Your task to perform on an android device: Go to sound settings Image 0: 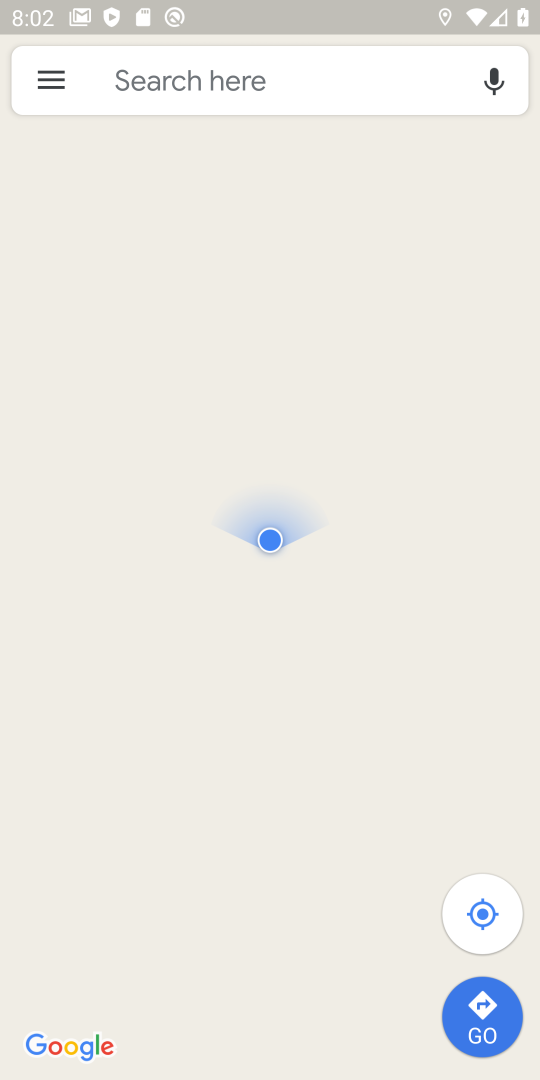
Step 0: press home button
Your task to perform on an android device: Go to sound settings Image 1: 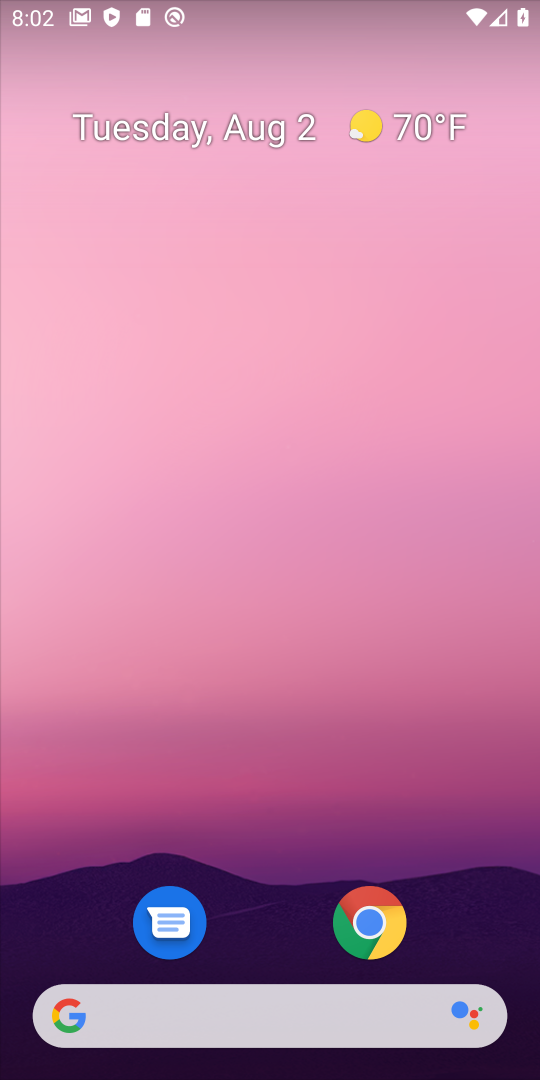
Step 1: drag from (443, 881) to (356, 369)
Your task to perform on an android device: Go to sound settings Image 2: 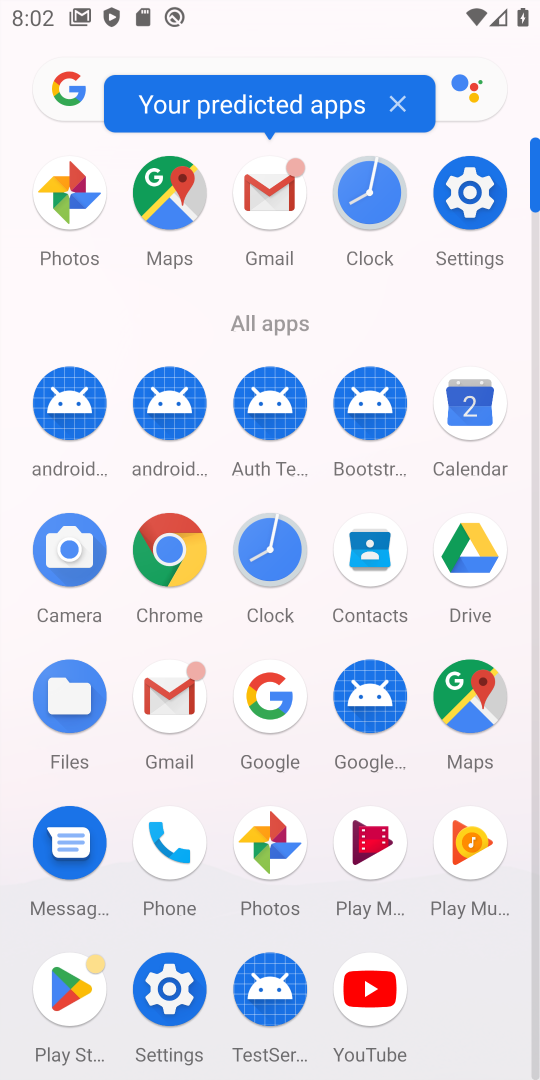
Step 2: click (466, 182)
Your task to perform on an android device: Go to sound settings Image 3: 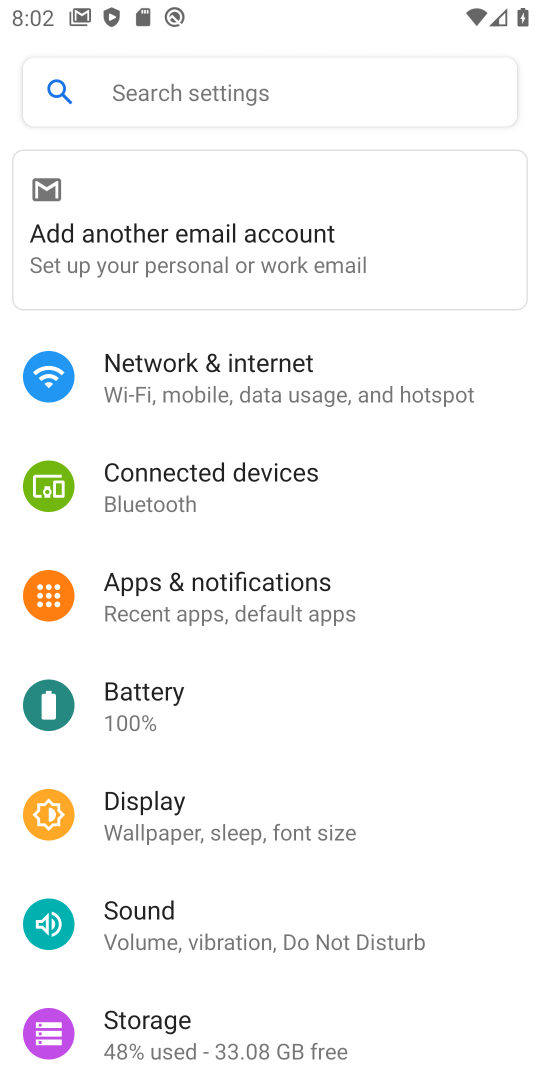
Step 3: click (133, 919)
Your task to perform on an android device: Go to sound settings Image 4: 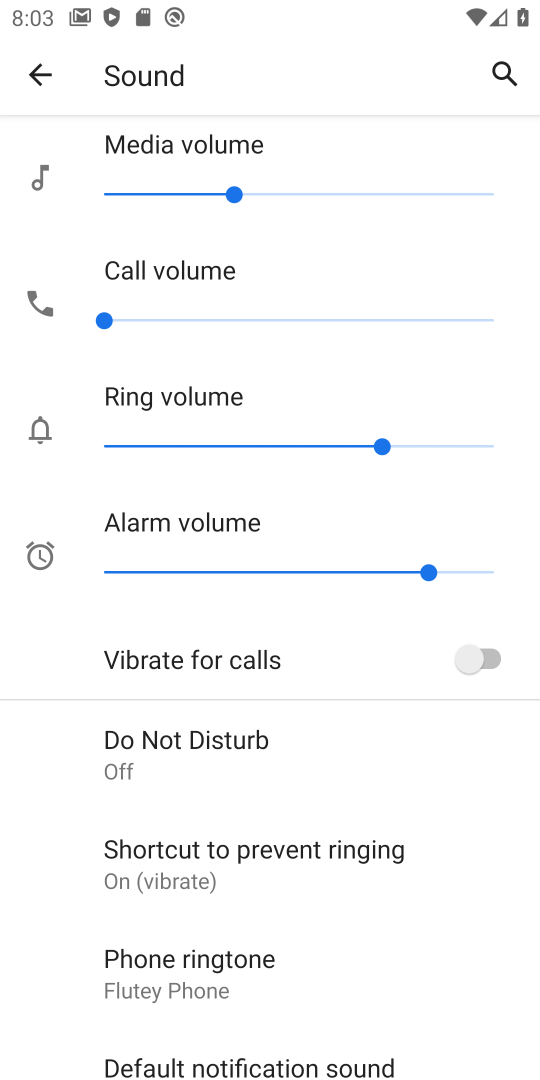
Step 4: task complete